Your task to perform on an android device: turn notification dots on Image 0: 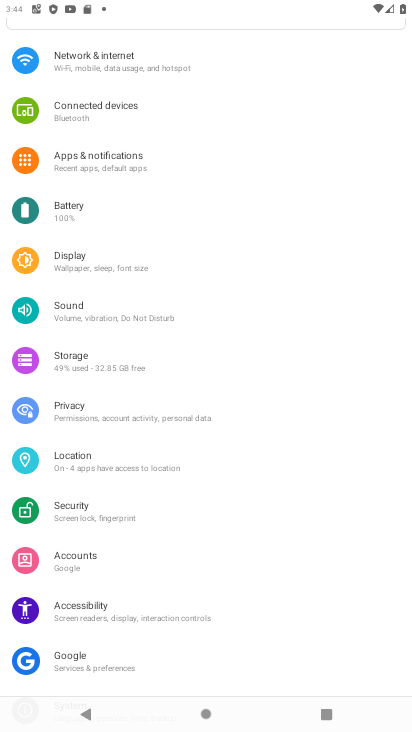
Step 0: click (110, 163)
Your task to perform on an android device: turn notification dots on Image 1: 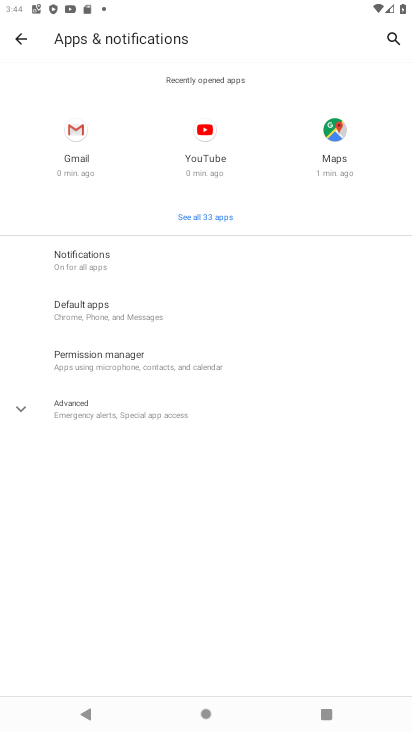
Step 1: click (154, 280)
Your task to perform on an android device: turn notification dots on Image 2: 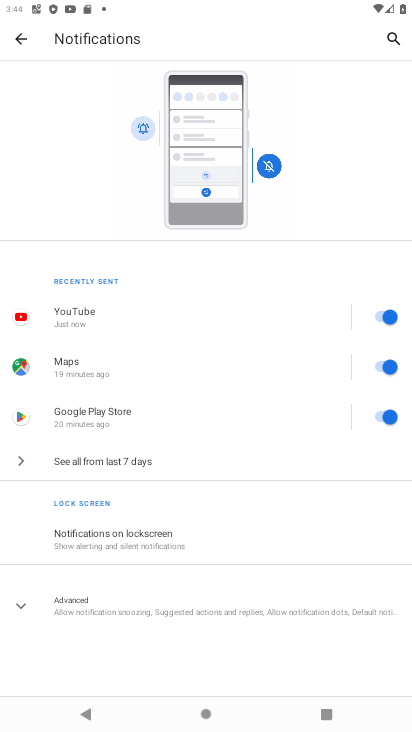
Step 2: click (202, 616)
Your task to perform on an android device: turn notification dots on Image 3: 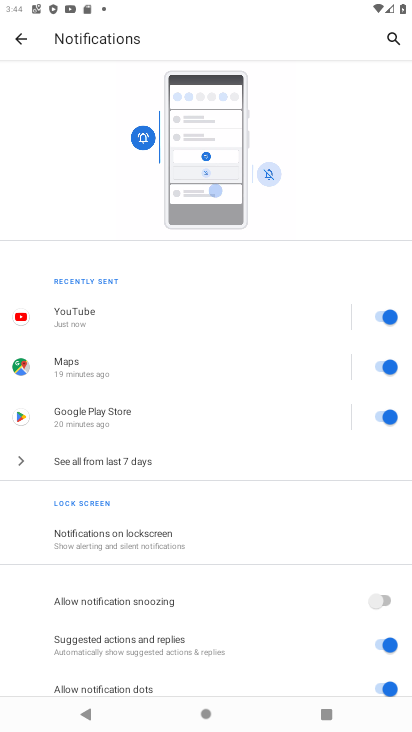
Step 3: click (249, 684)
Your task to perform on an android device: turn notification dots on Image 4: 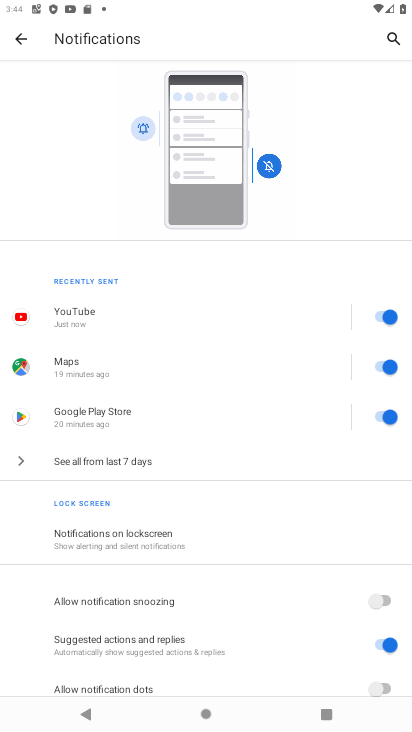
Step 4: task complete